Your task to perform on an android device: turn on bluetooth scan Image 0: 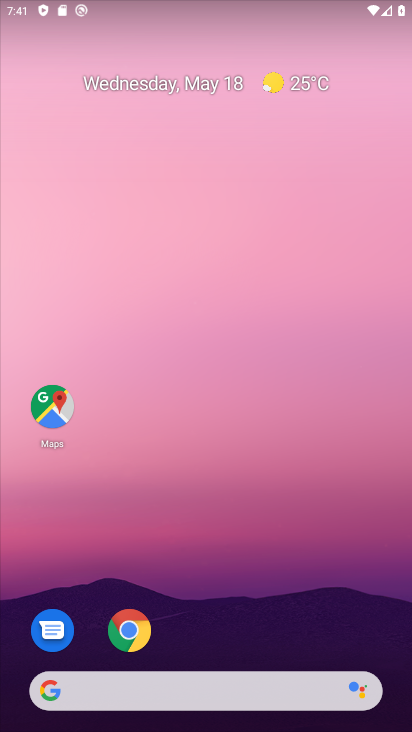
Step 0: drag from (257, 594) to (329, 188)
Your task to perform on an android device: turn on bluetooth scan Image 1: 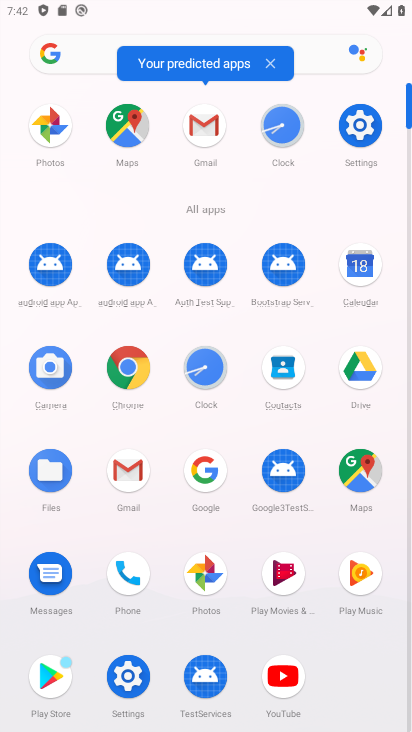
Step 1: click (369, 126)
Your task to perform on an android device: turn on bluetooth scan Image 2: 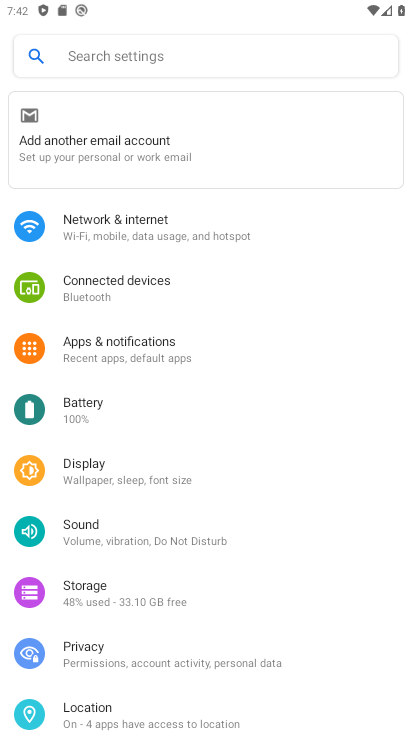
Step 2: click (134, 717)
Your task to perform on an android device: turn on bluetooth scan Image 3: 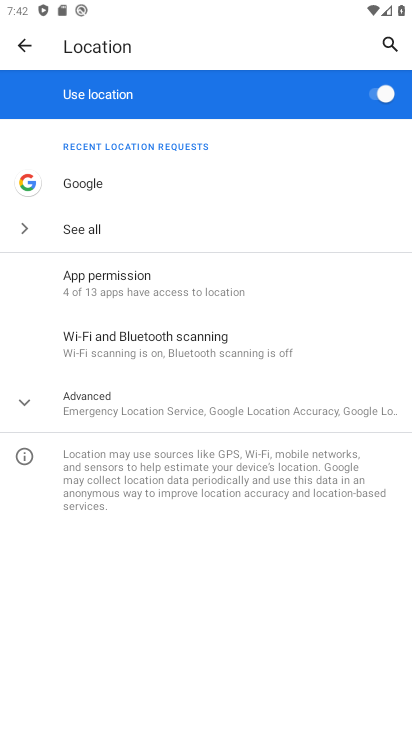
Step 3: drag from (147, 687) to (252, 346)
Your task to perform on an android device: turn on bluetooth scan Image 4: 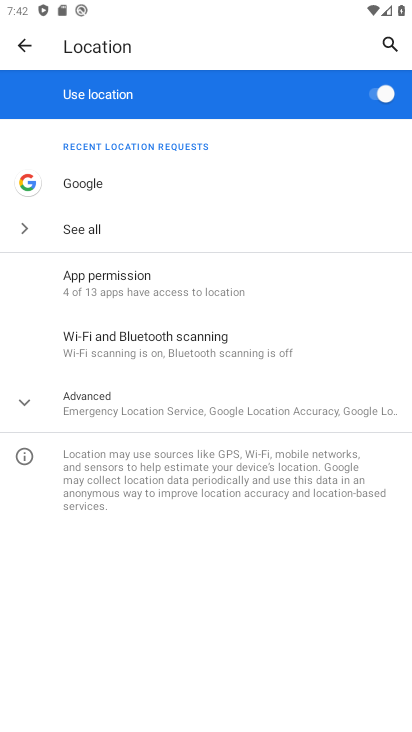
Step 4: click (252, 346)
Your task to perform on an android device: turn on bluetooth scan Image 5: 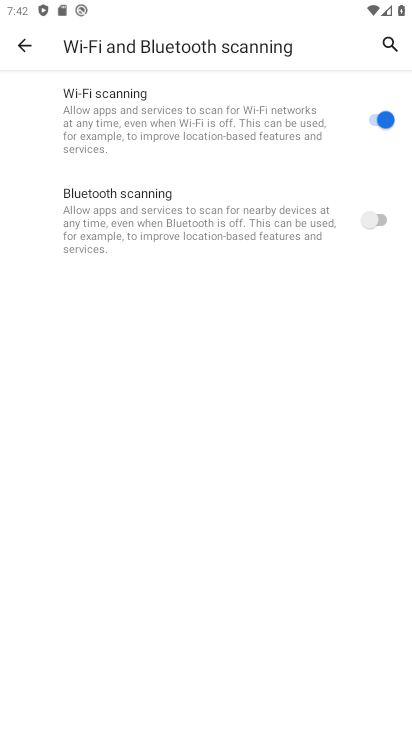
Step 5: click (364, 212)
Your task to perform on an android device: turn on bluetooth scan Image 6: 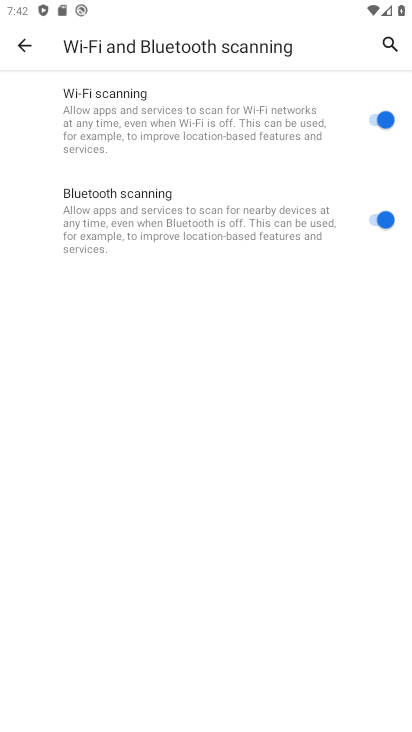
Step 6: task complete